Your task to perform on an android device: What is the recent news? Image 0: 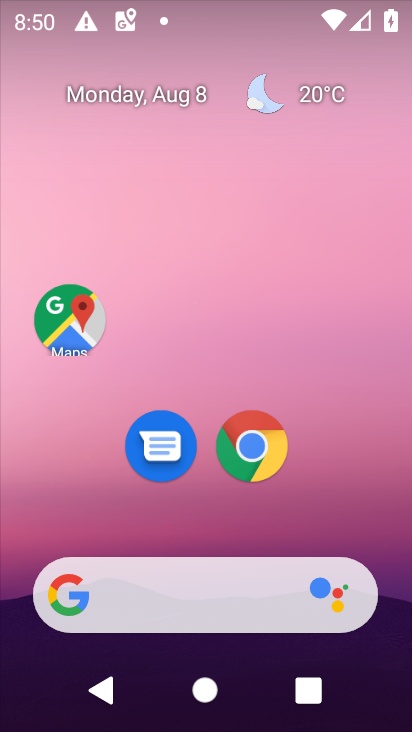
Step 0: drag from (5, 250) to (399, 228)
Your task to perform on an android device: What is the recent news? Image 1: 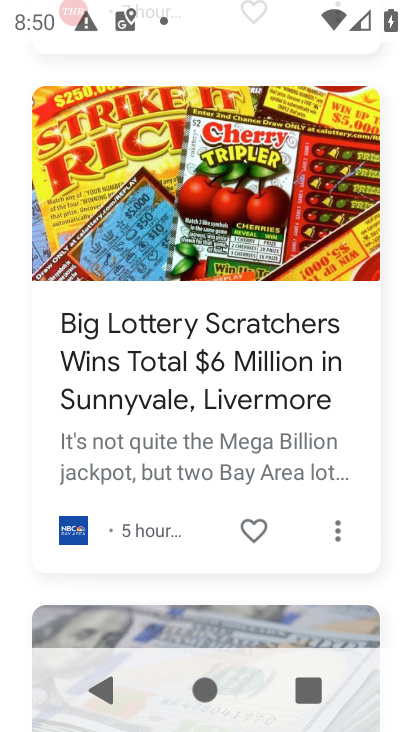
Step 1: task complete